Your task to perform on an android device: open app "Airtel Thanks" Image 0: 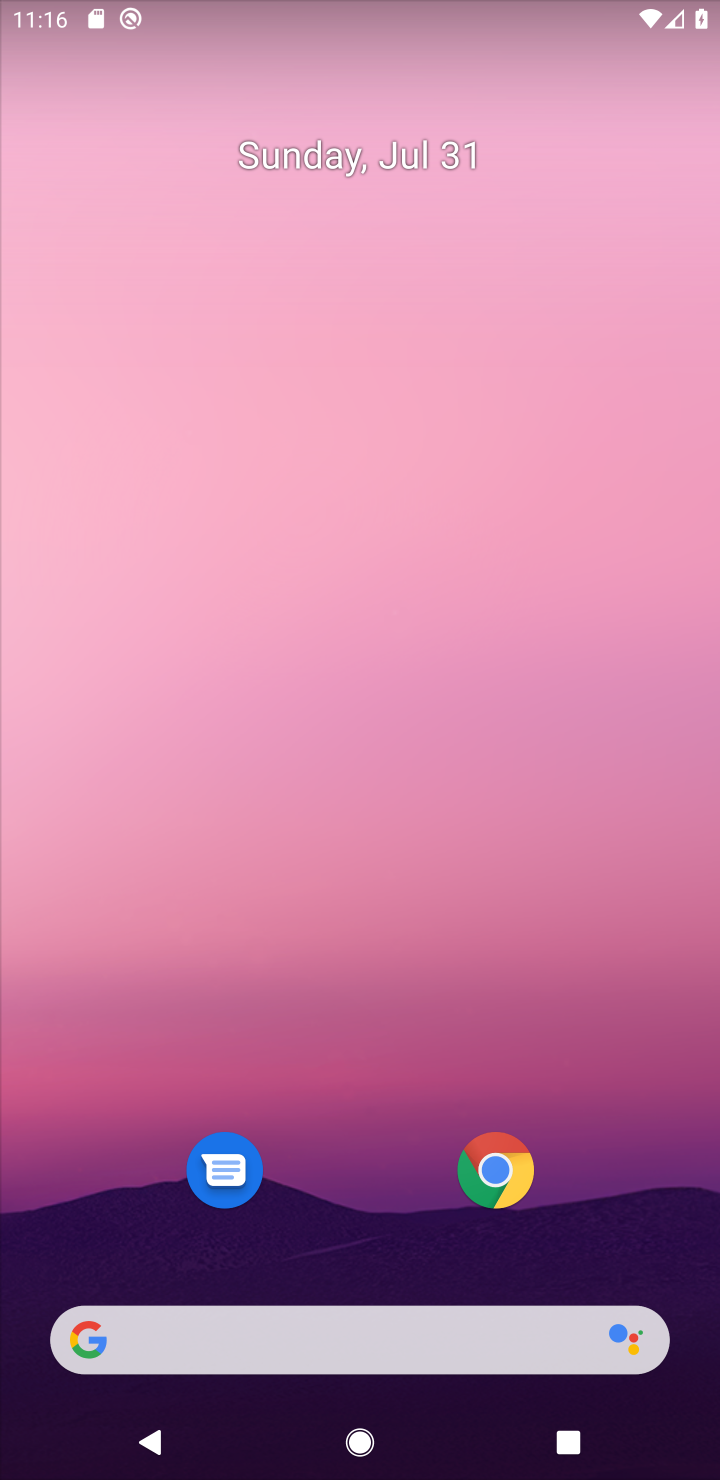
Step 0: drag from (613, 1014) to (281, 0)
Your task to perform on an android device: open app "Airtel Thanks" Image 1: 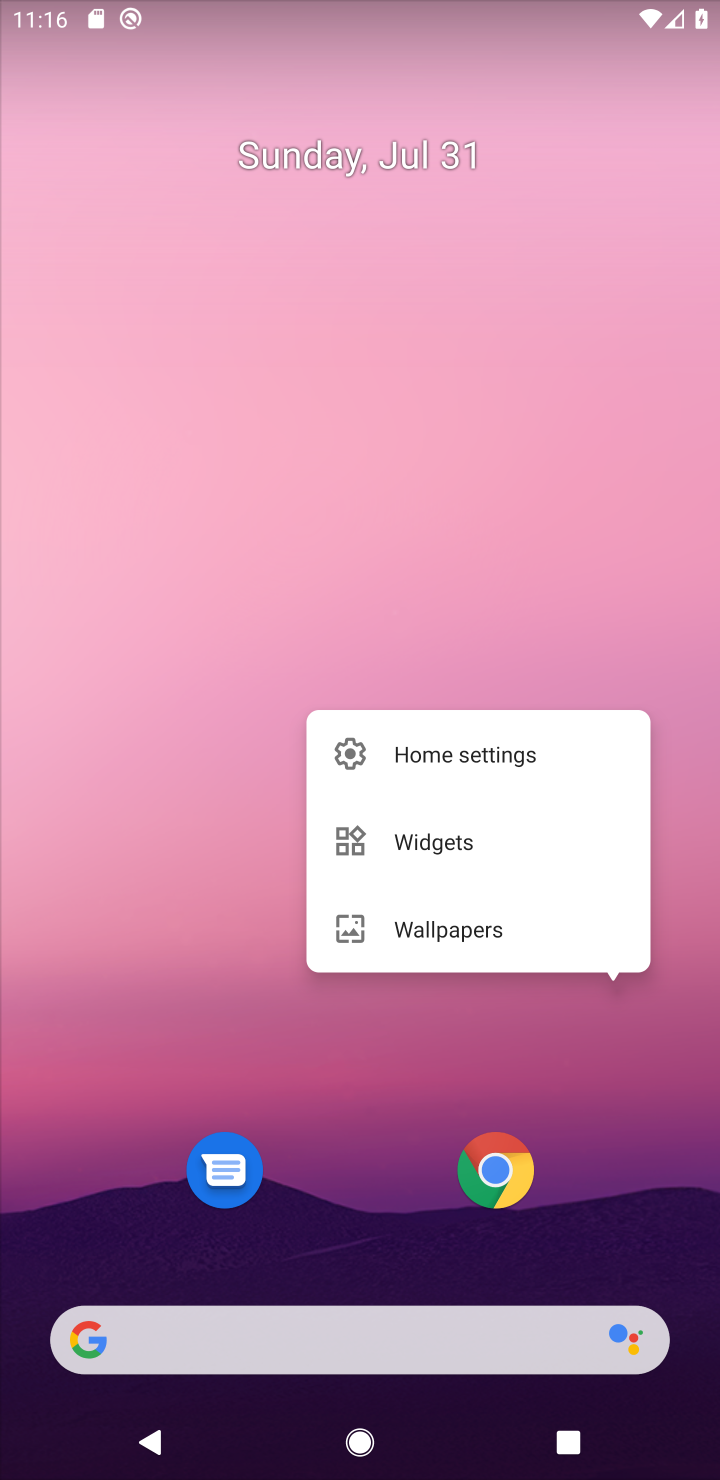
Step 1: click (625, 447)
Your task to perform on an android device: open app "Airtel Thanks" Image 2: 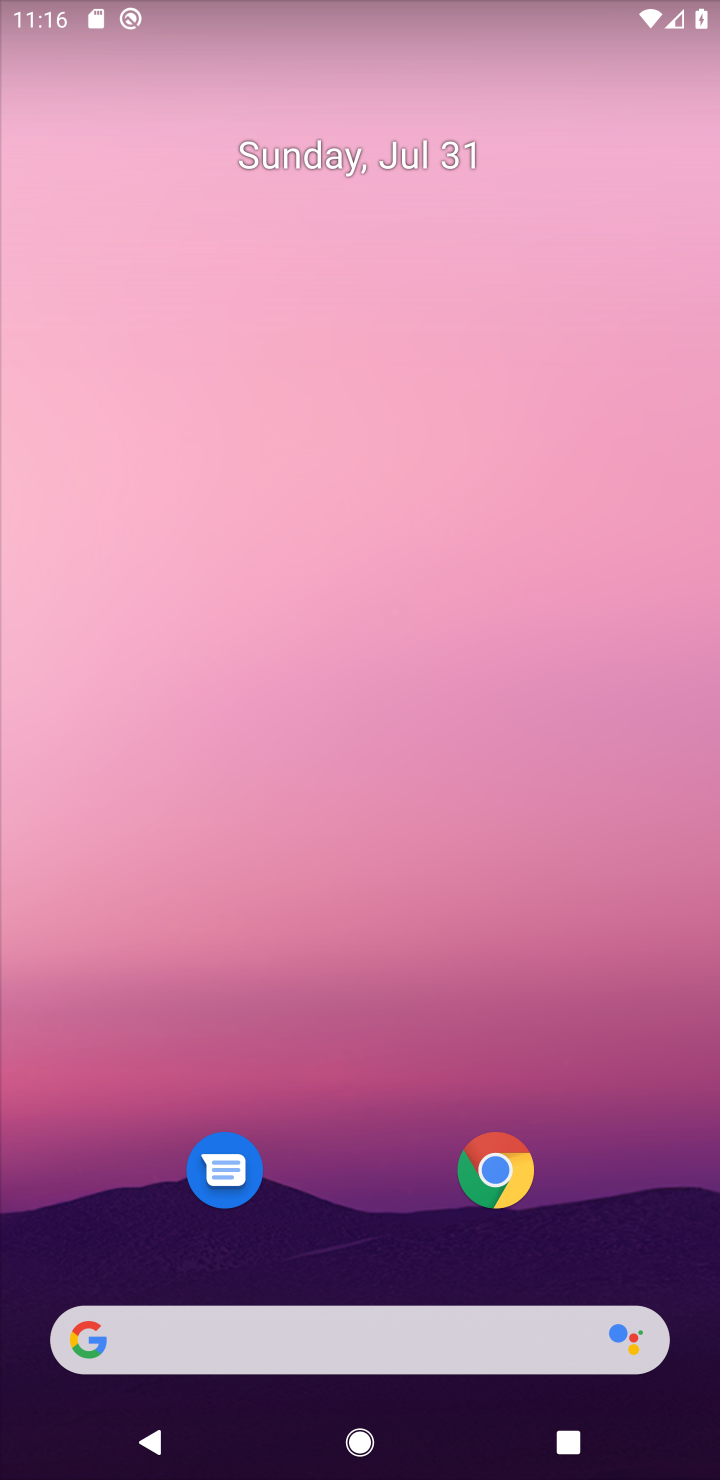
Step 2: drag from (617, 1226) to (425, 46)
Your task to perform on an android device: open app "Airtel Thanks" Image 3: 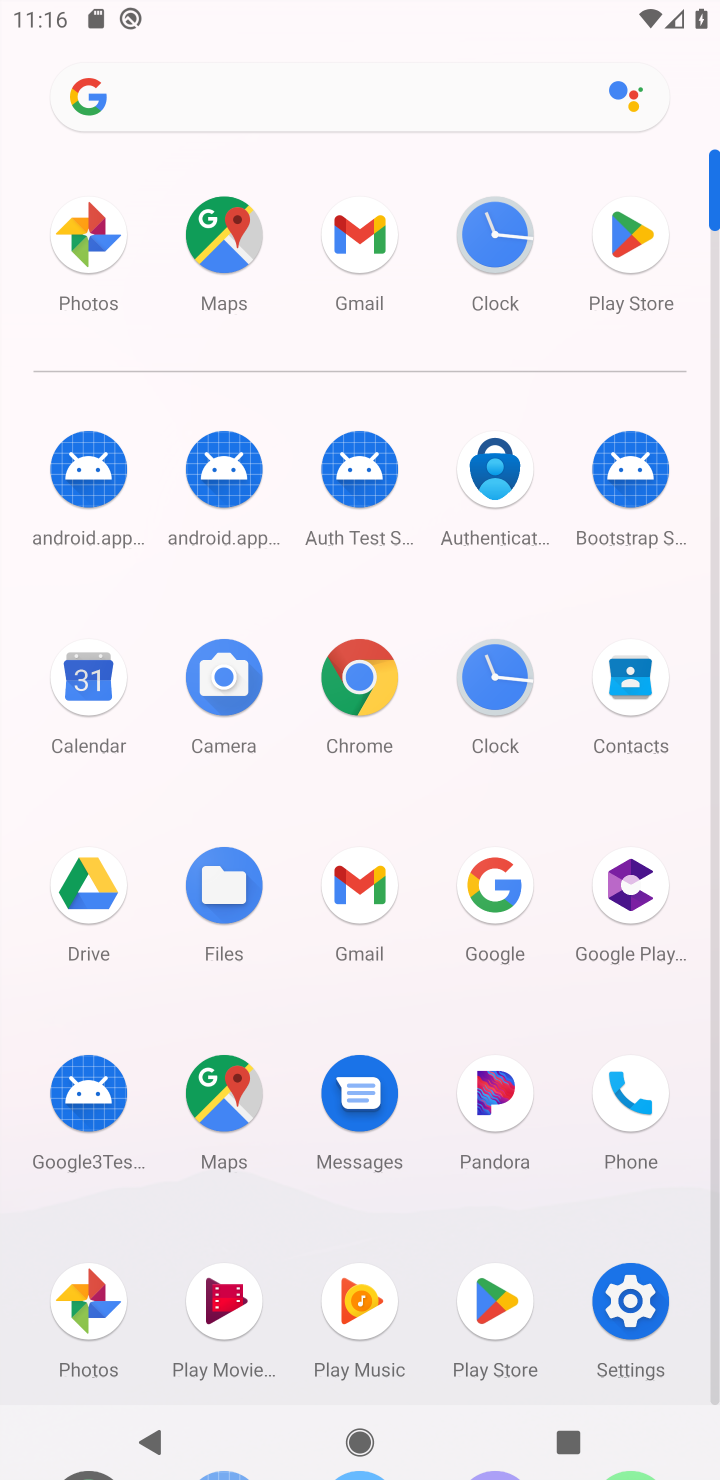
Step 3: click (636, 239)
Your task to perform on an android device: open app "Airtel Thanks" Image 4: 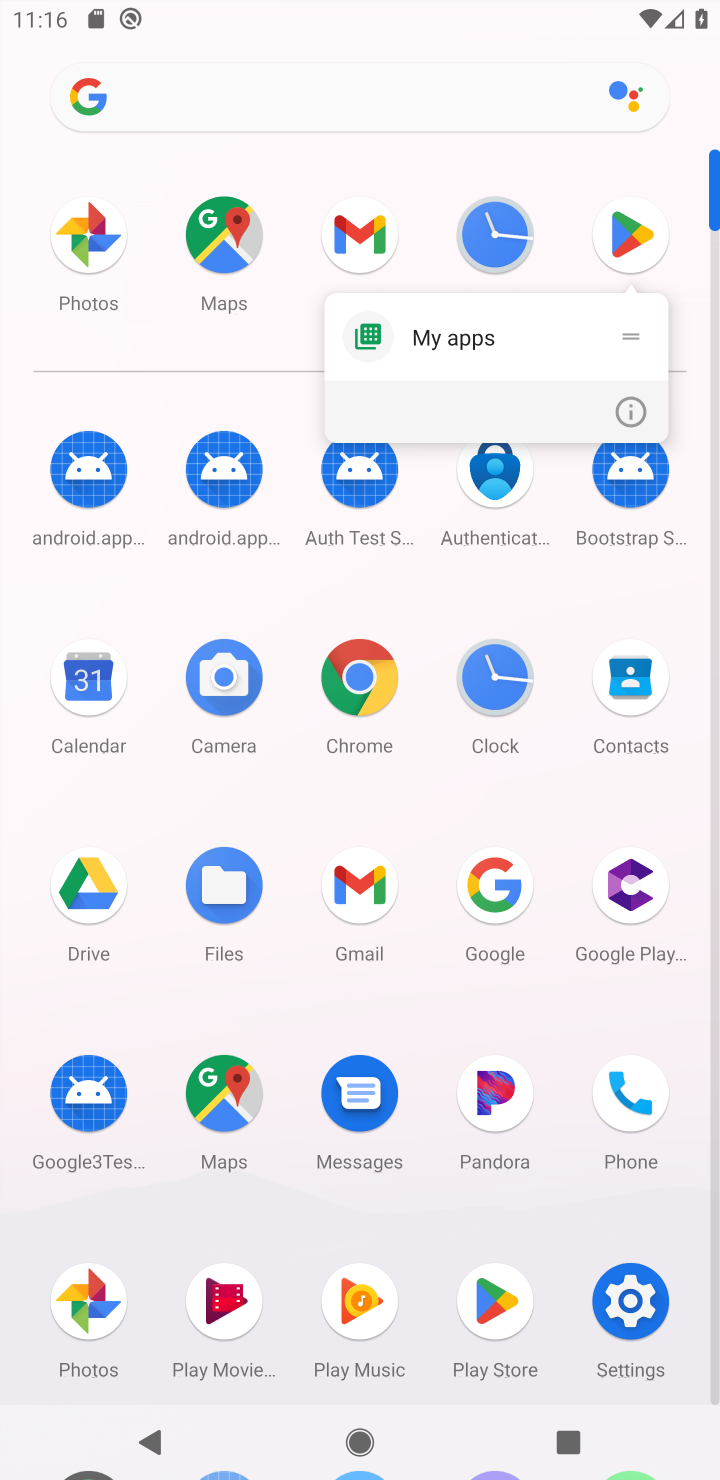
Step 4: click (606, 241)
Your task to perform on an android device: open app "Airtel Thanks" Image 5: 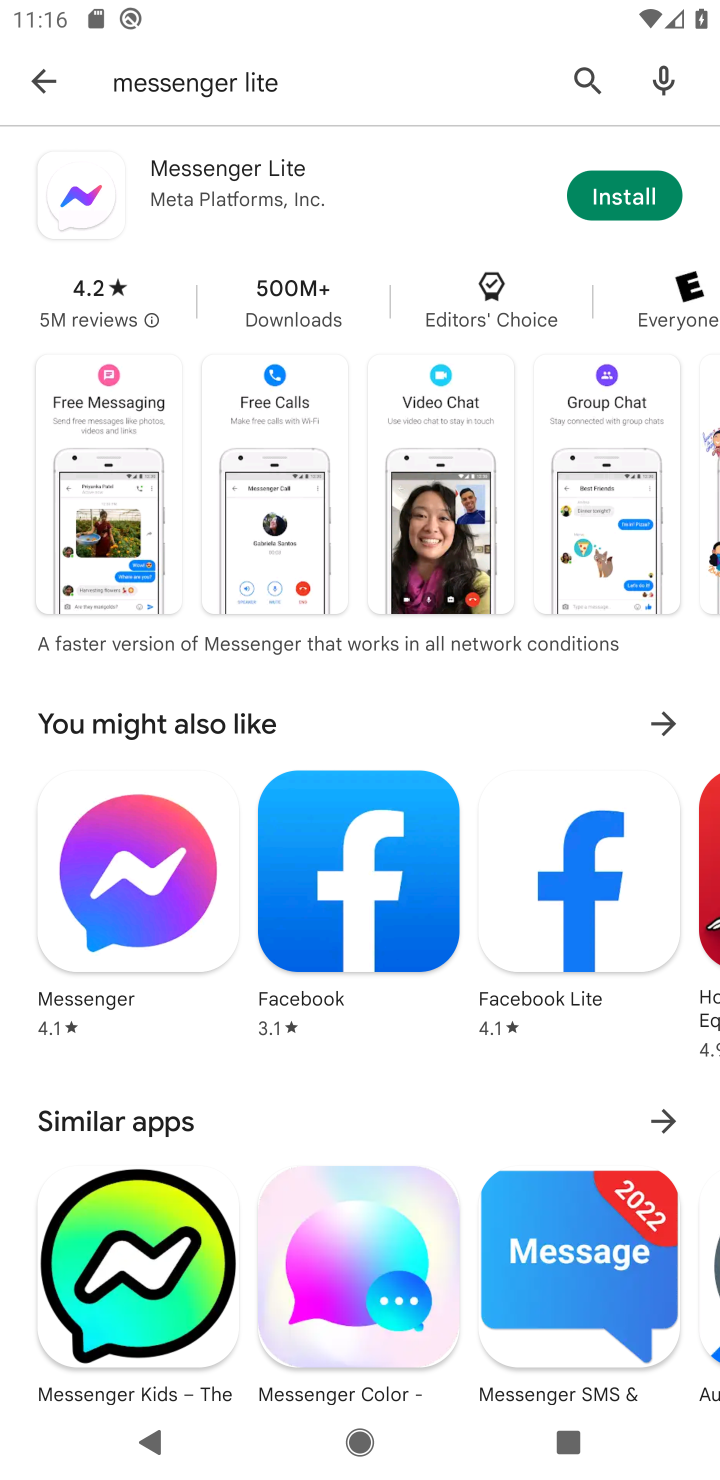
Step 5: press back button
Your task to perform on an android device: open app "Airtel Thanks" Image 6: 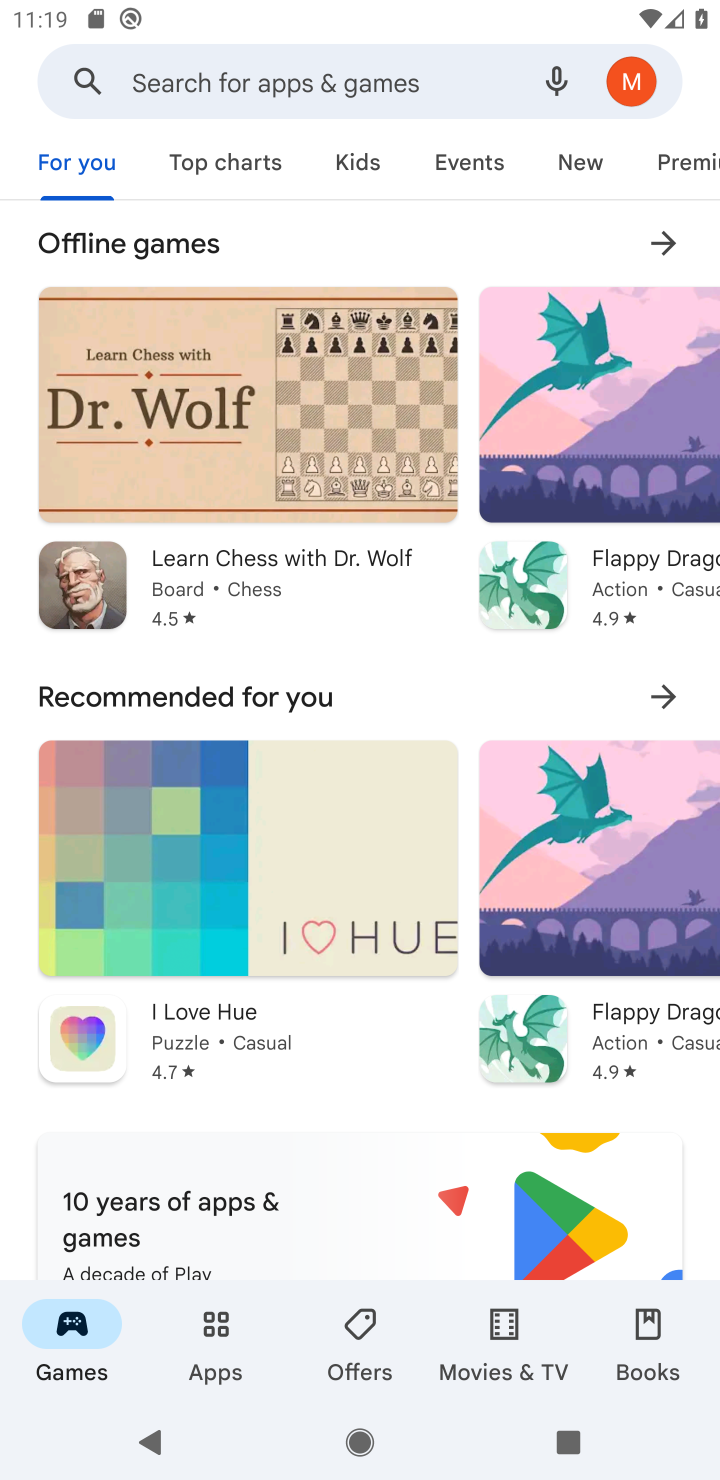
Step 6: click (240, 89)
Your task to perform on an android device: open app "Airtel Thanks" Image 7: 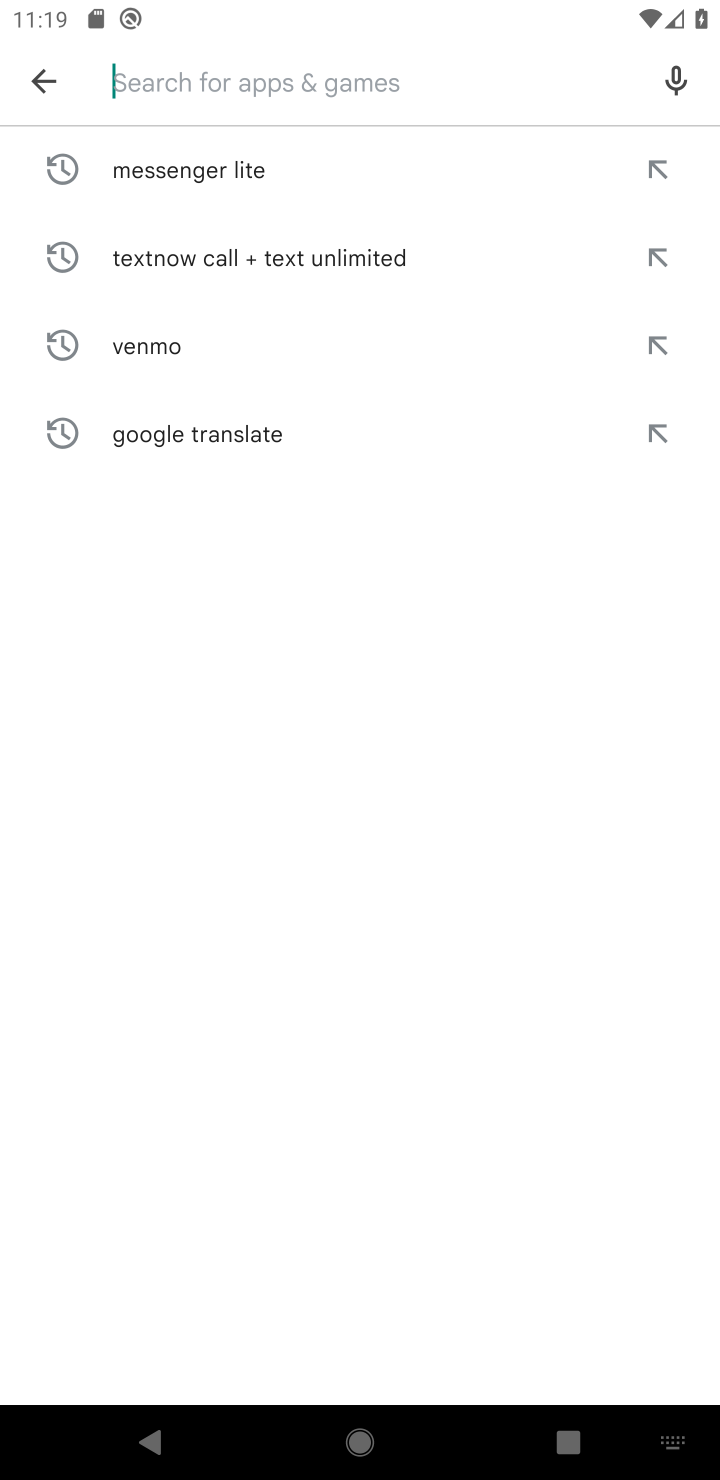
Step 7: type "Airtel Thanks"
Your task to perform on an android device: open app "Airtel Thanks" Image 8: 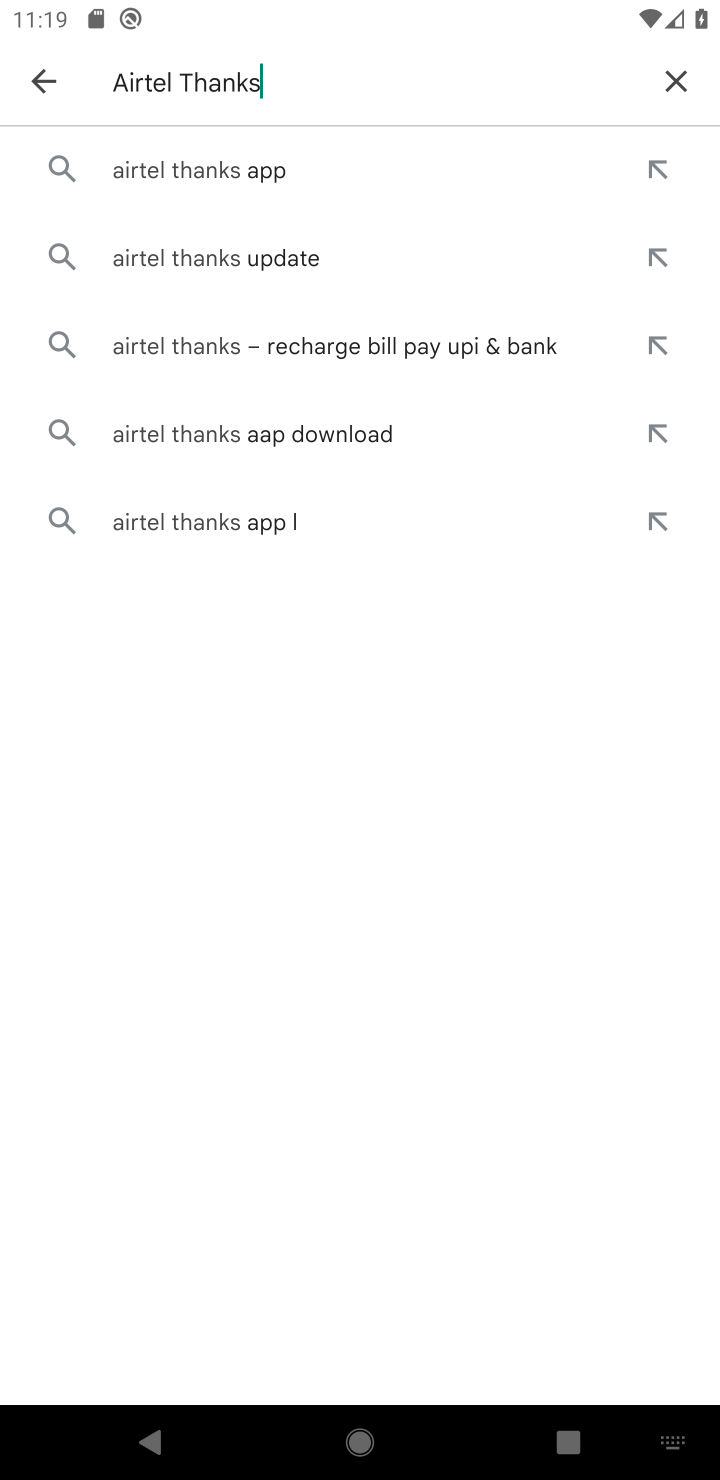
Step 8: click (279, 174)
Your task to perform on an android device: open app "Airtel Thanks" Image 9: 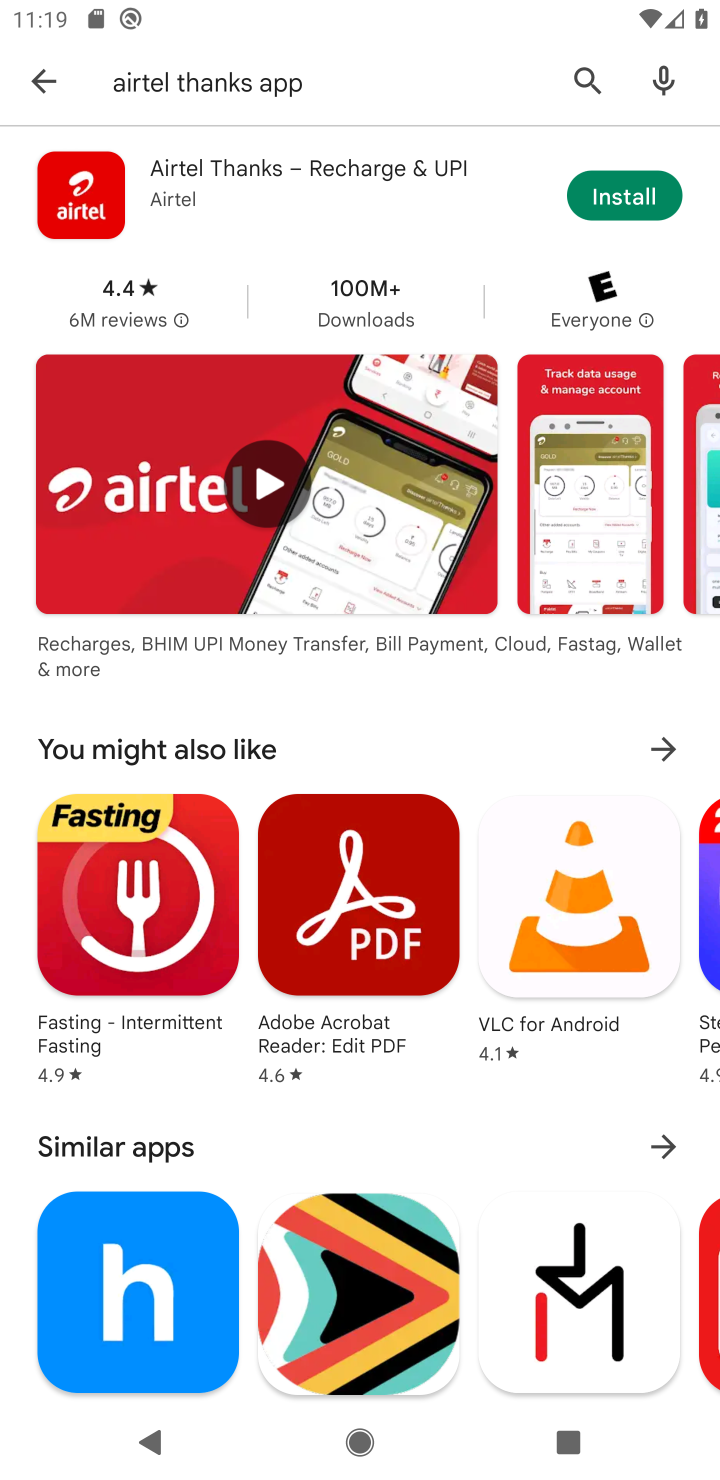
Step 9: task complete